Your task to perform on an android device: change the clock display to analog Image 0: 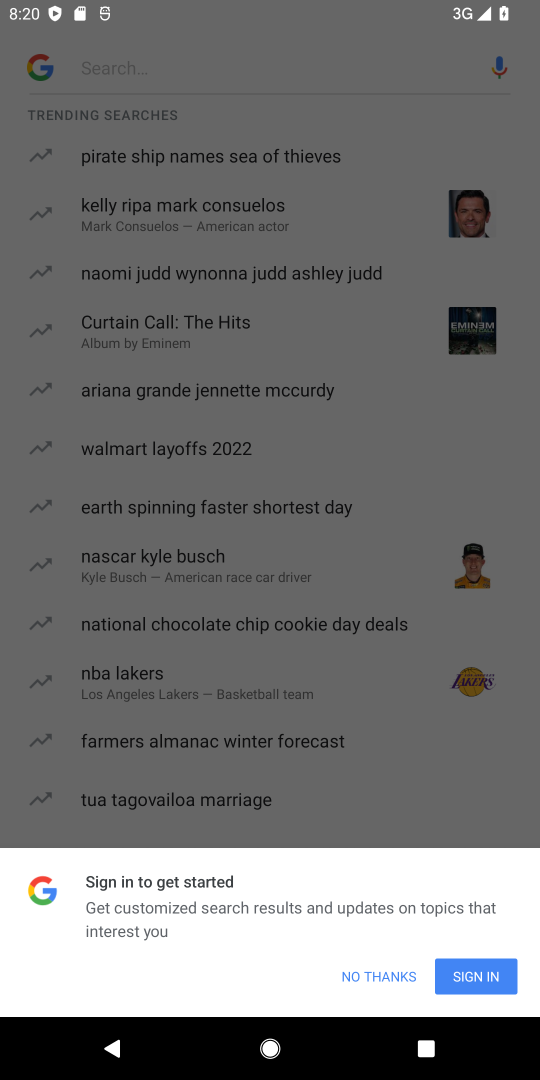
Step 0: press home button
Your task to perform on an android device: change the clock display to analog Image 1: 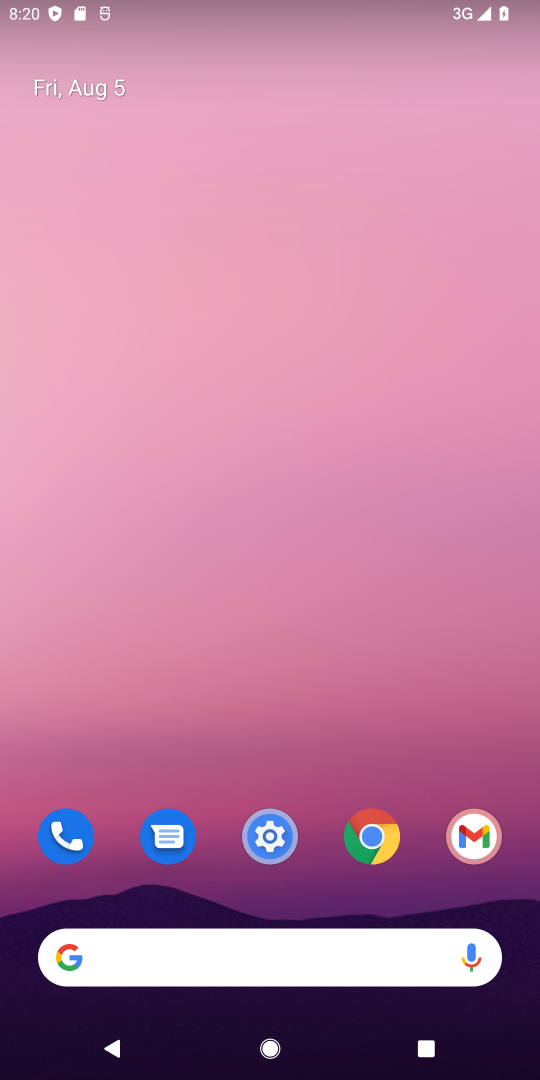
Step 1: drag from (288, 759) to (286, 20)
Your task to perform on an android device: change the clock display to analog Image 2: 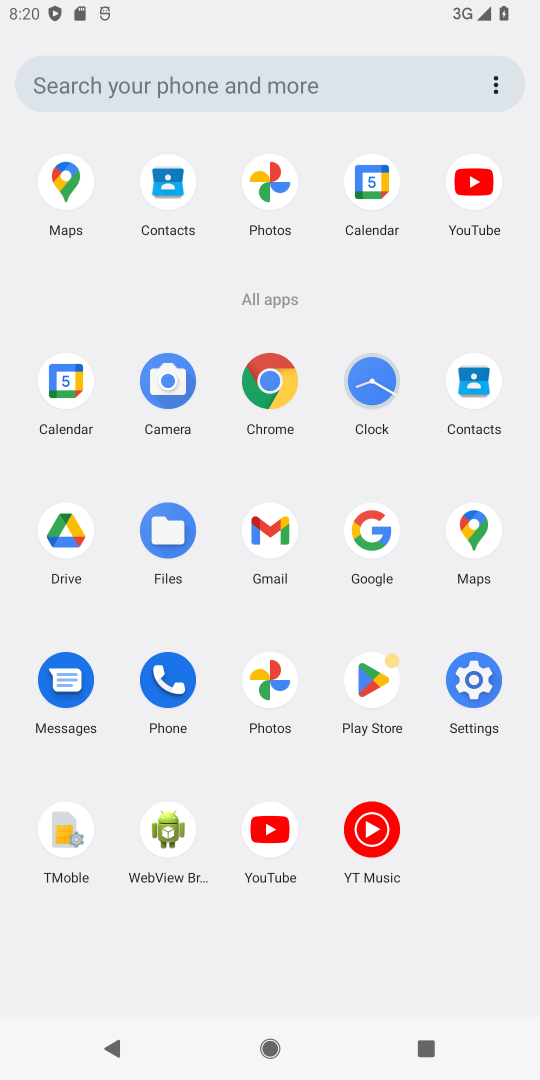
Step 2: click (367, 379)
Your task to perform on an android device: change the clock display to analog Image 3: 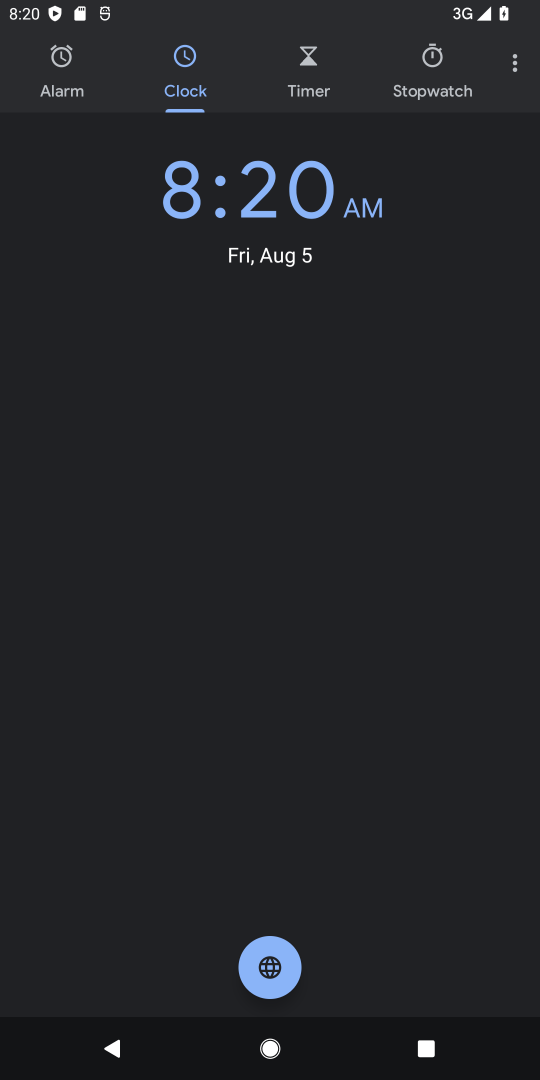
Step 3: click (516, 65)
Your task to perform on an android device: change the clock display to analog Image 4: 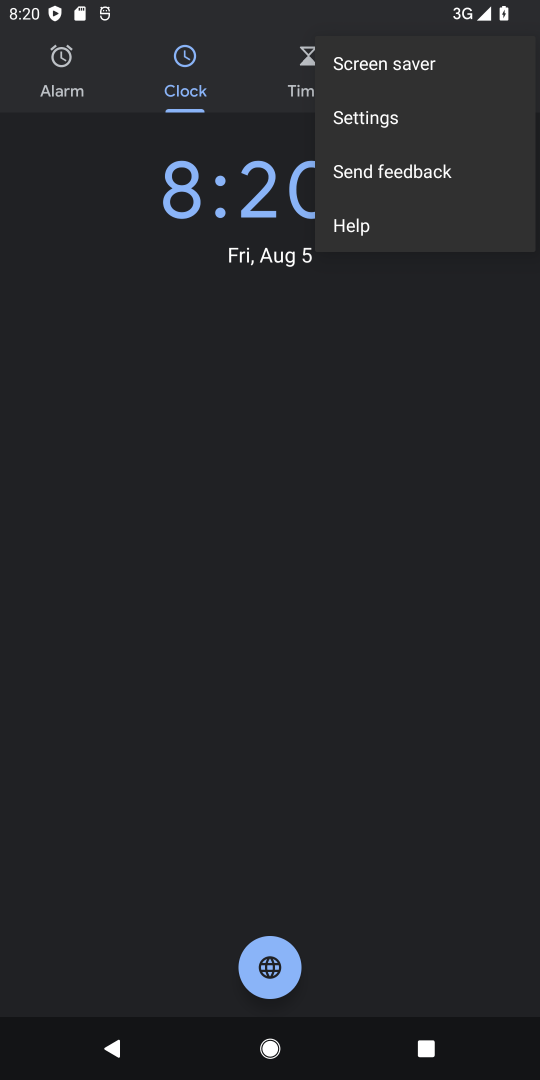
Step 4: click (381, 128)
Your task to perform on an android device: change the clock display to analog Image 5: 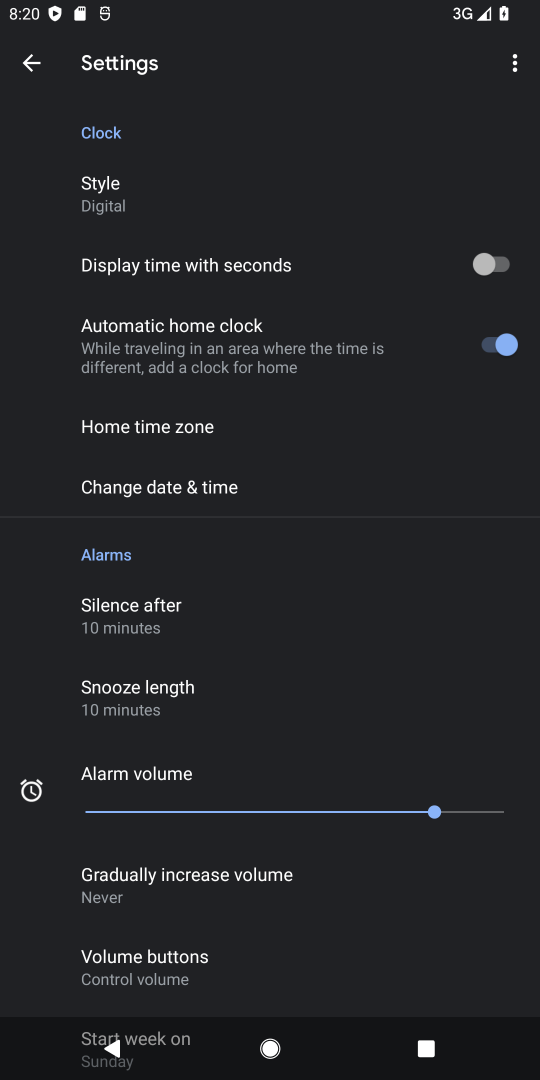
Step 5: click (93, 191)
Your task to perform on an android device: change the clock display to analog Image 6: 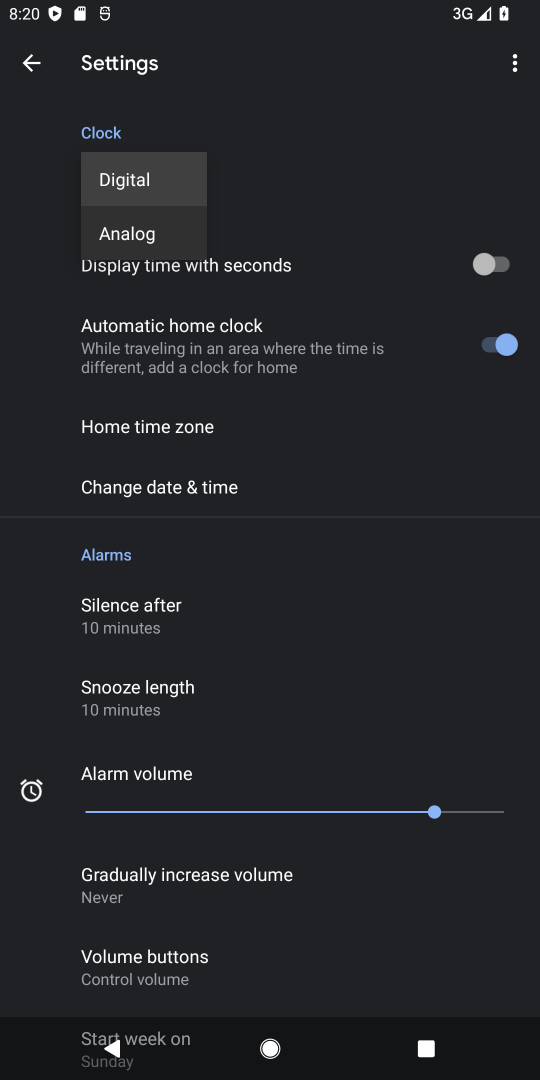
Step 6: click (127, 235)
Your task to perform on an android device: change the clock display to analog Image 7: 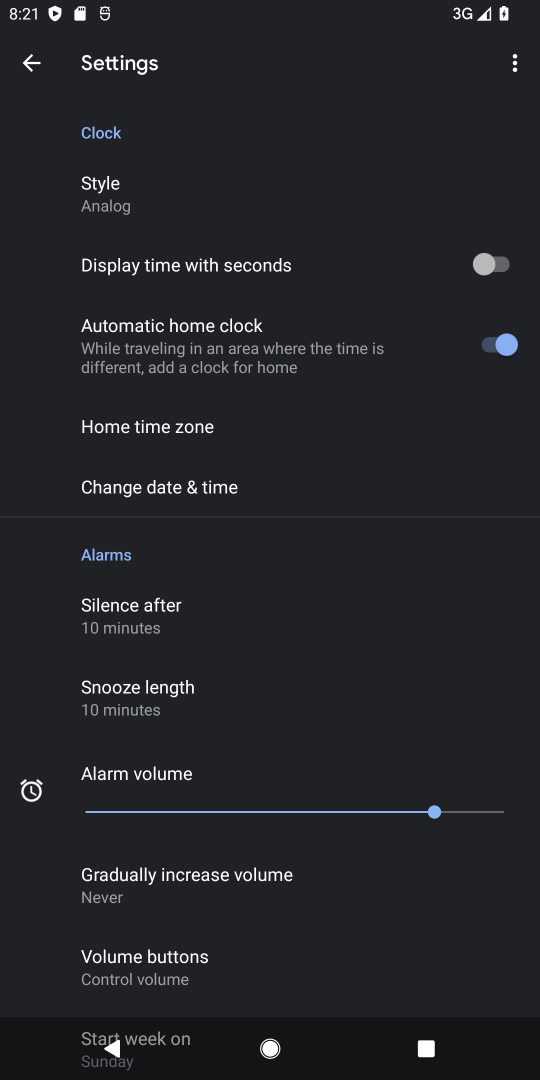
Step 7: task complete